Your task to perform on an android device: Go to Amazon Image 0: 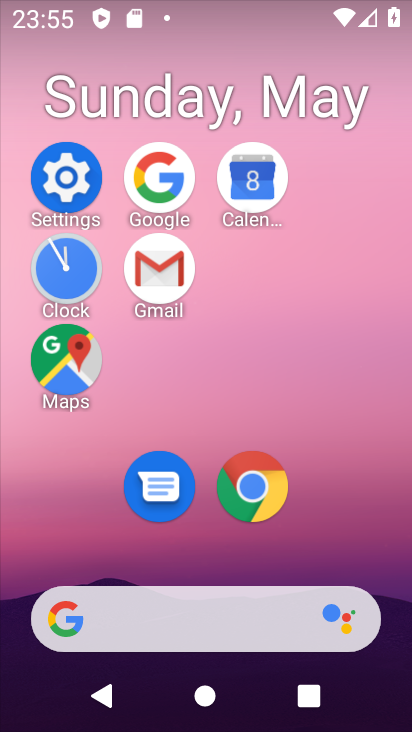
Step 0: click (277, 479)
Your task to perform on an android device: Go to Amazon Image 1: 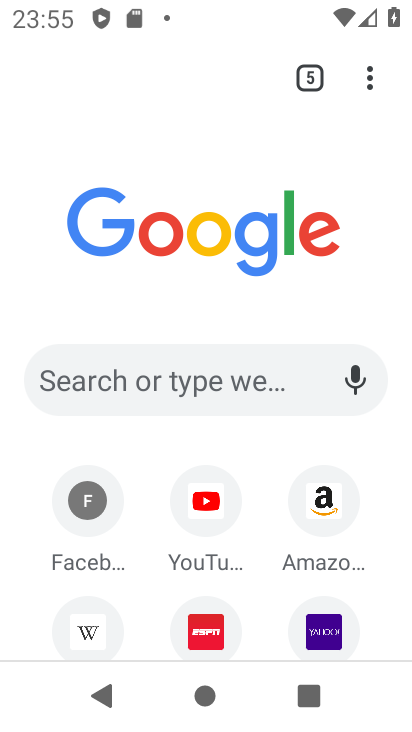
Step 1: click (332, 505)
Your task to perform on an android device: Go to Amazon Image 2: 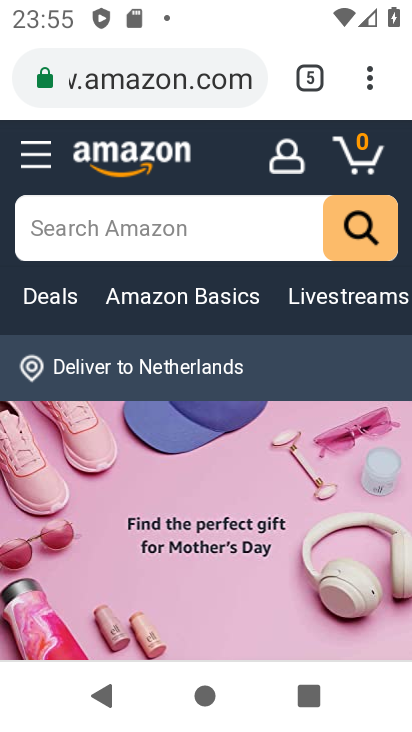
Step 2: task complete